Your task to perform on an android device: move an email to a new category in the gmail app Image 0: 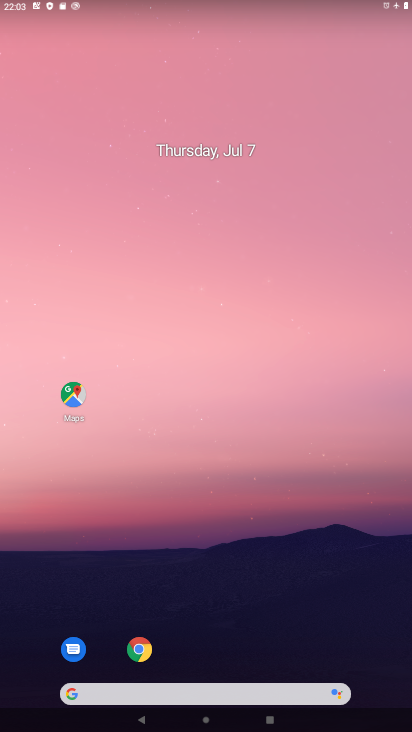
Step 0: drag from (225, 701) to (225, 627)
Your task to perform on an android device: move an email to a new category in the gmail app Image 1: 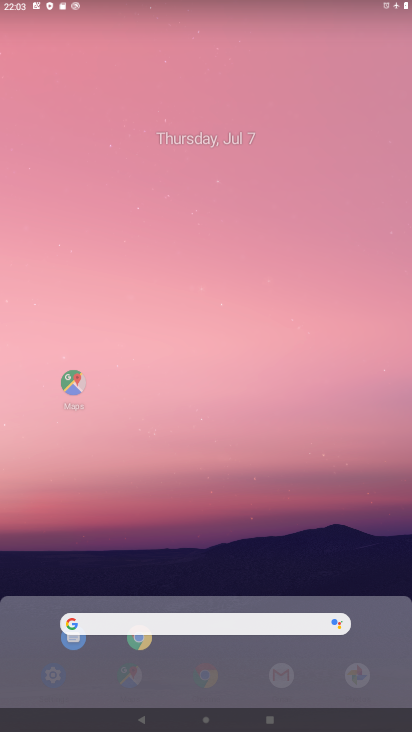
Step 1: click (224, 77)
Your task to perform on an android device: move an email to a new category in the gmail app Image 2: 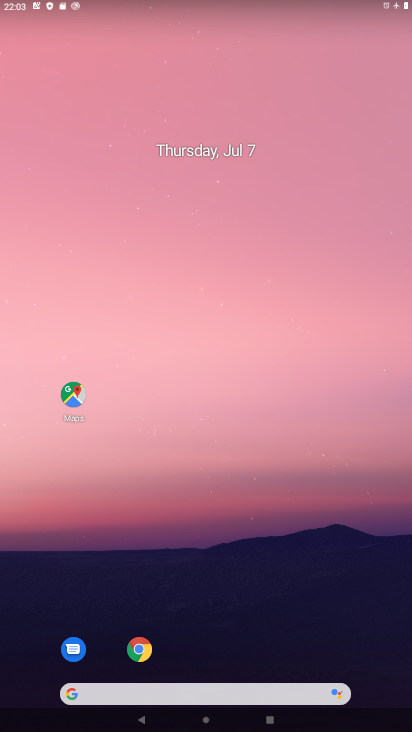
Step 2: drag from (234, 729) to (234, 47)
Your task to perform on an android device: move an email to a new category in the gmail app Image 3: 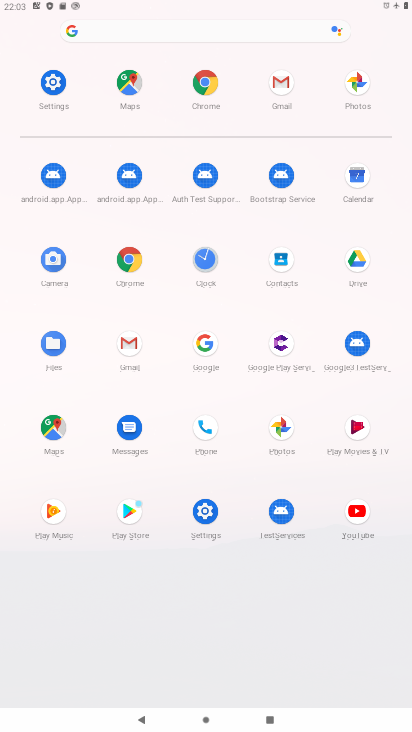
Step 3: click (131, 347)
Your task to perform on an android device: move an email to a new category in the gmail app Image 4: 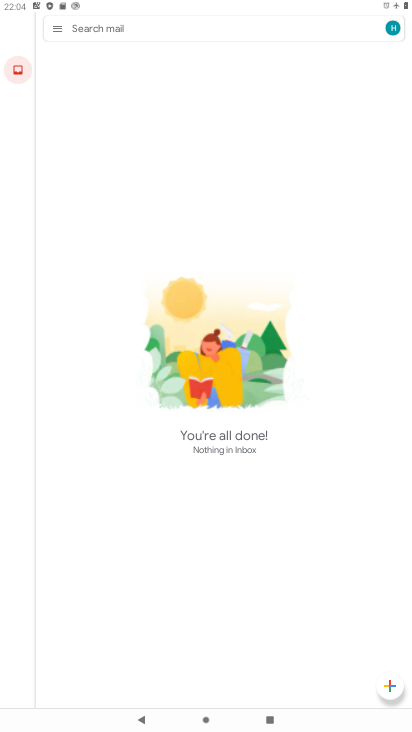
Step 4: task complete